Your task to perform on an android device: turn off sleep mode Image 0: 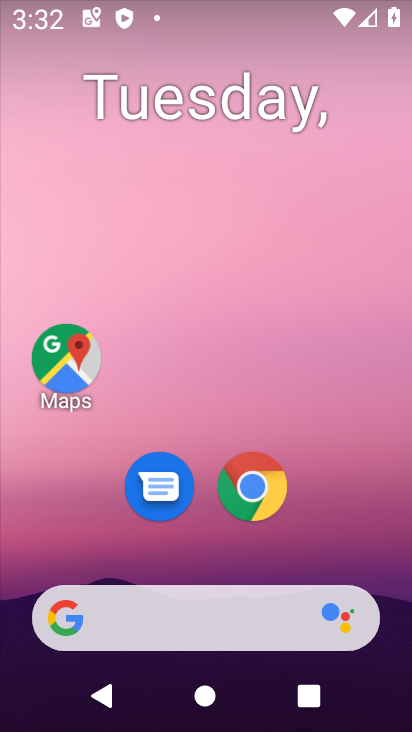
Step 0: drag from (196, 544) to (243, 0)
Your task to perform on an android device: turn off sleep mode Image 1: 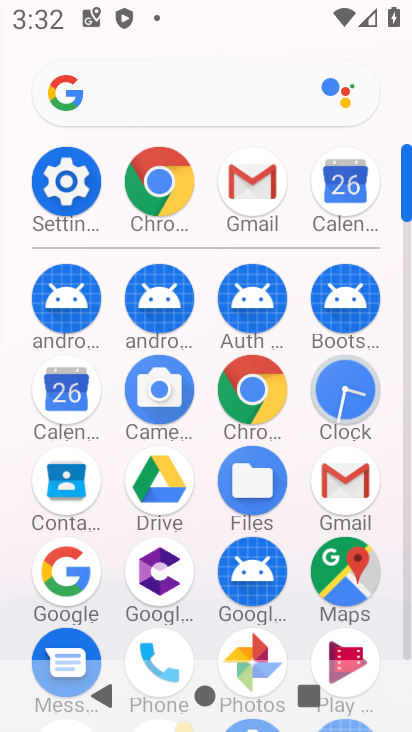
Step 1: click (71, 173)
Your task to perform on an android device: turn off sleep mode Image 2: 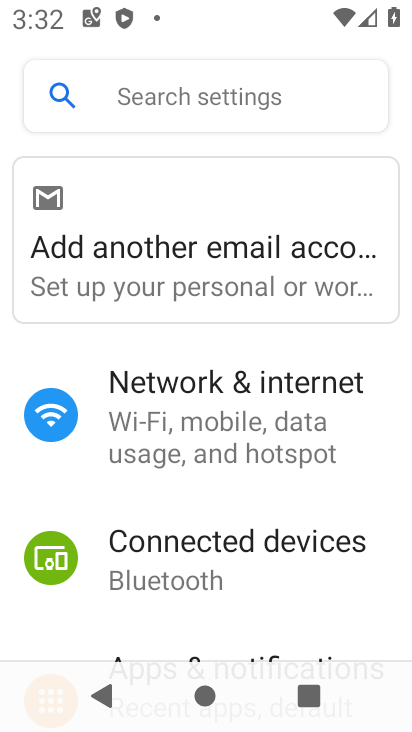
Step 2: click (173, 89)
Your task to perform on an android device: turn off sleep mode Image 3: 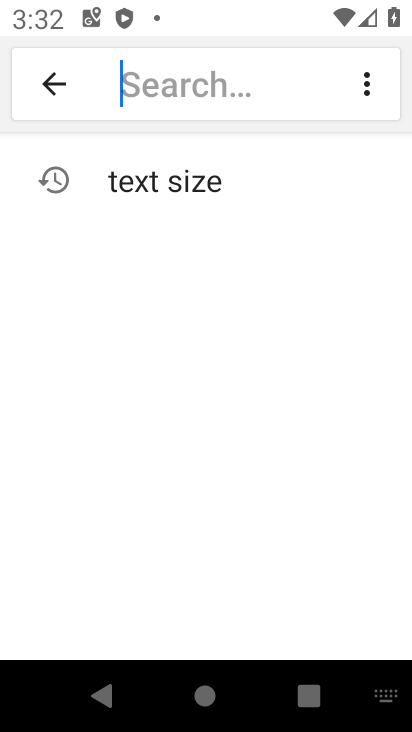
Step 3: type "sleep mode"
Your task to perform on an android device: turn off sleep mode Image 4: 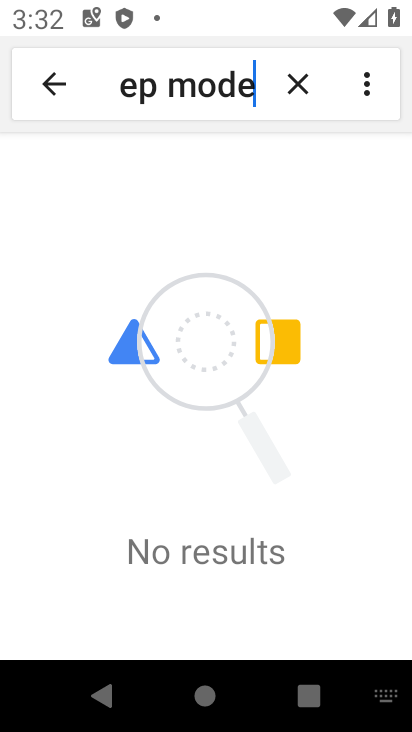
Step 4: task complete